Your task to perform on an android device: open a bookmark in the chrome app Image 0: 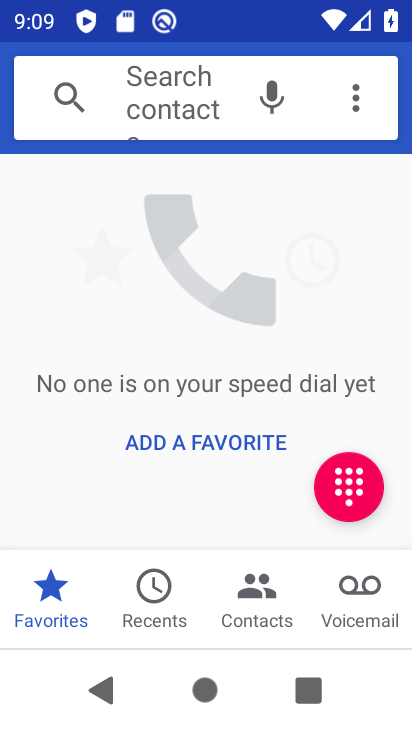
Step 0: press home button
Your task to perform on an android device: open a bookmark in the chrome app Image 1: 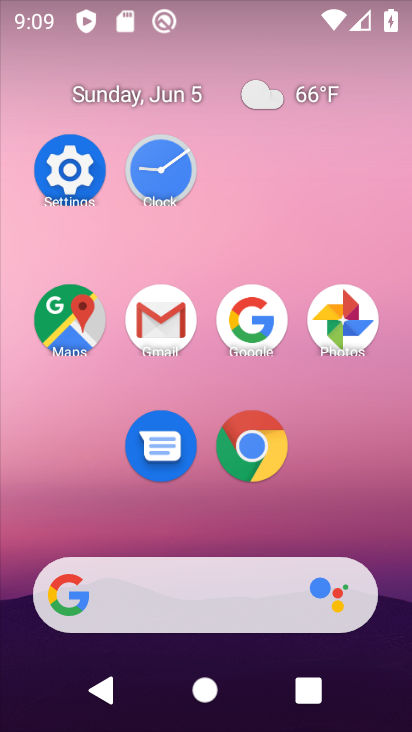
Step 1: click (278, 437)
Your task to perform on an android device: open a bookmark in the chrome app Image 2: 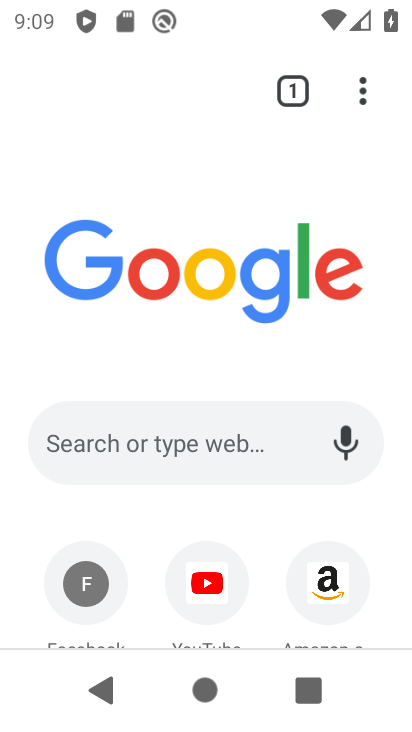
Step 2: click (362, 97)
Your task to perform on an android device: open a bookmark in the chrome app Image 3: 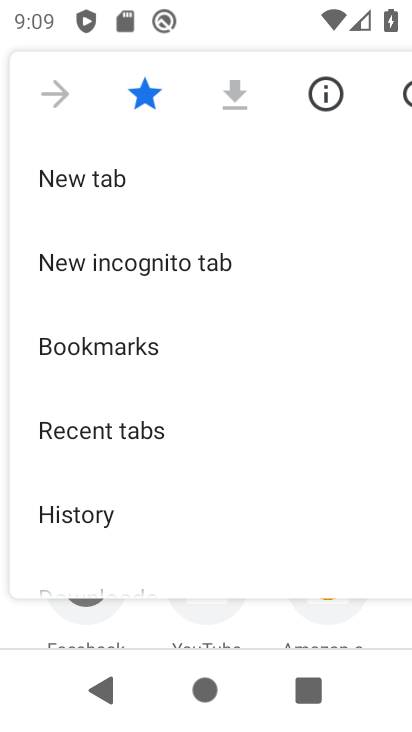
Step 3: click (133, 355)
Your task to perform on an android device: open a bookmark in the chrome app Image 4: 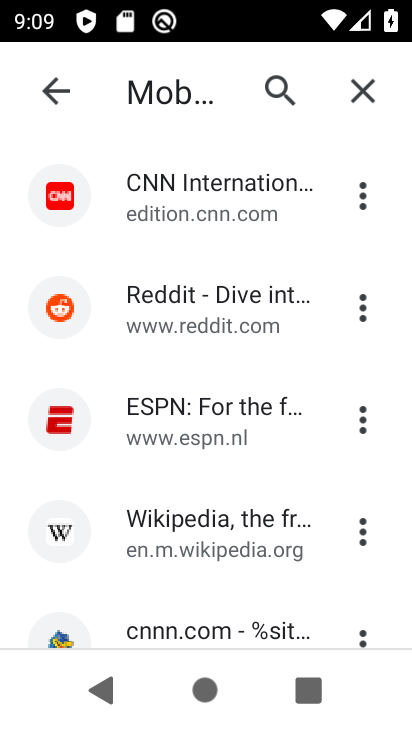
Step 4: click (160, 185)
Your task to perform on an android device: open a bookmark in the chrome app Image 5: 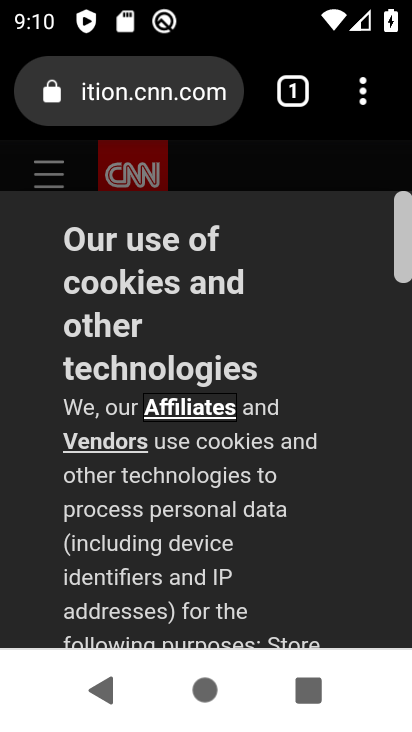
Step 5: task complete